Your task to perform on an android device: toggle wifi Image 0: 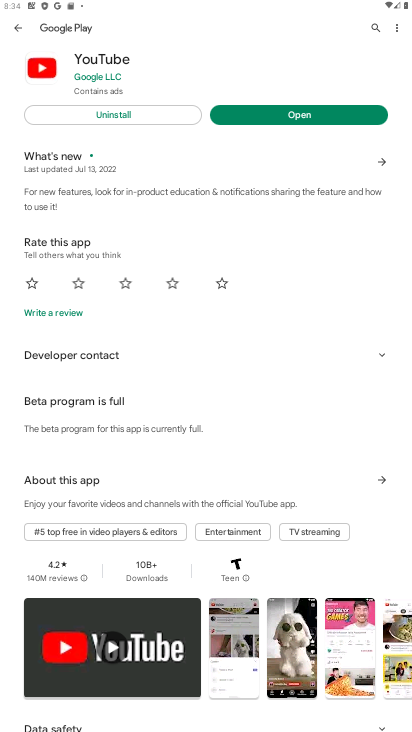
Step 0: task complete